Your task to perform on an android device: Open Maps and search for coffee Image 0: 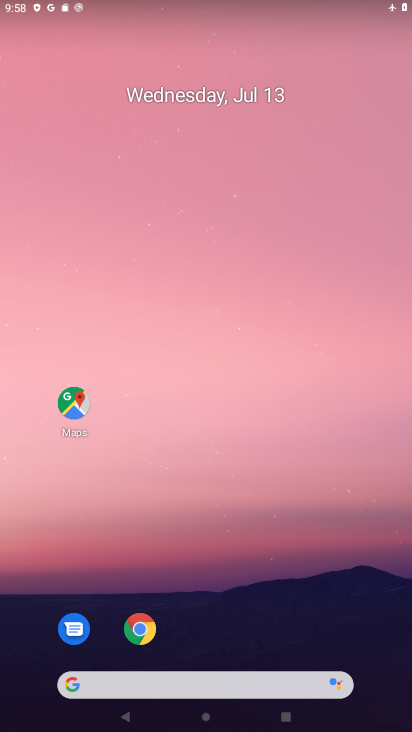
Step 0: click (73, 421)
Your task to perform on an android device: Open Maps and search for coffee Image 1: 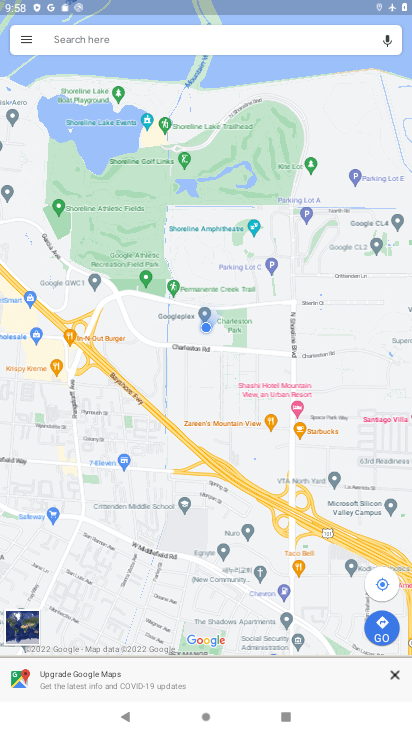
Step 1: click (208, 36)
Your task to perform on an android device: Open Maps and search for coffee Image 2: 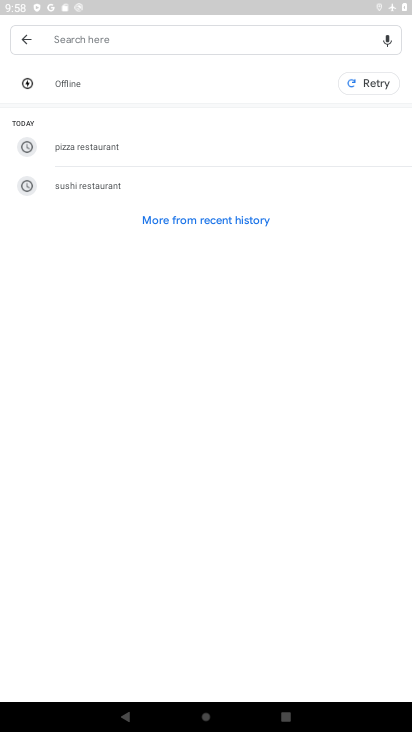
Step 2: type "coffee"
Your task to perform on an android device: Open Maps and search for coffee Image 3: 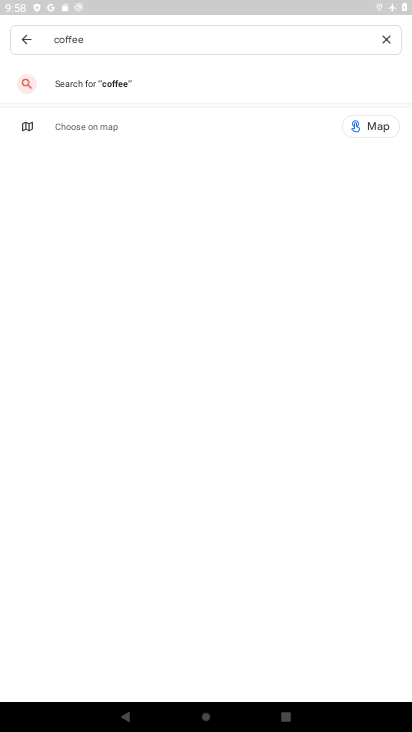
Step 3: click (134, 93)
Your task to perform on an android device: Open Maps and search for coffee Image 4: 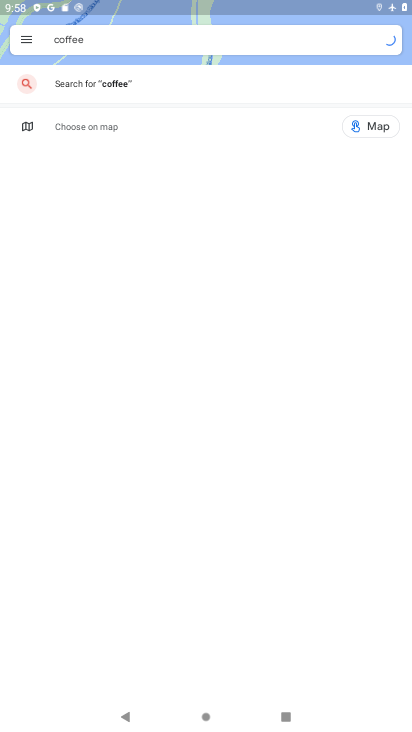
Step 4: task complete